Your task to perform on an android device: Go to Wikipedia Image 0: 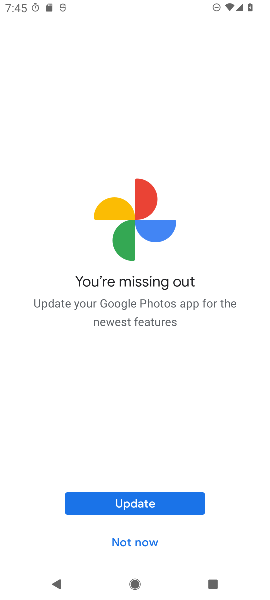
Step 0: press home button
Your task to perform on an android device: Go to Wikipedia Image 1: 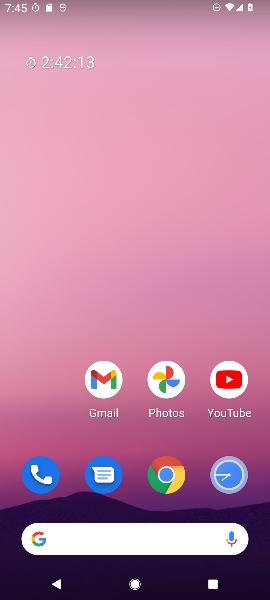
Step 1: drag from (59, 432) to (72, 159)
Your task to perform on an android device: Go to Wikipedia Image 2: 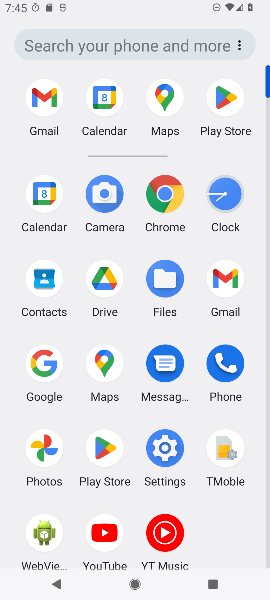
Step 2: click (162, 190)
Your task to perform on an android device: Go to Wikipedia Image 3: 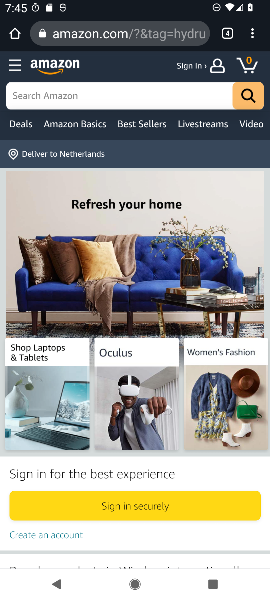
Step 3: click (143, 30)
Your task to perform on an android device: Go to Wikipedia Image 4: 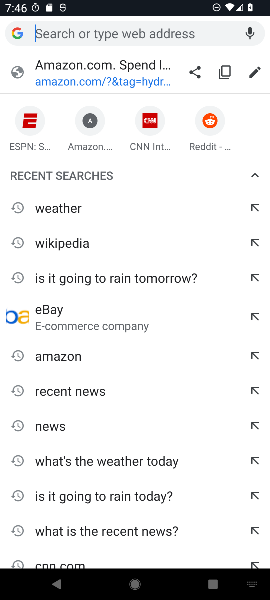
Step 4: type "wikipedia"
Your task to perform on an android device: Go to Wikipedia Image 5: 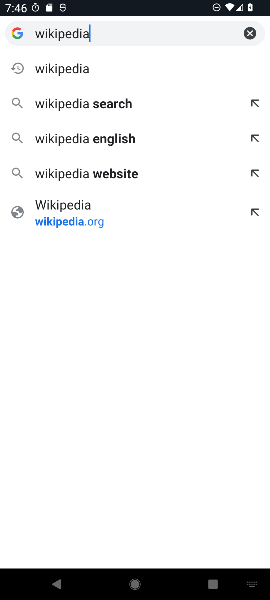
Step 5: click (76, 68)
Your task to perform on an android device: Go to Wikipedia Image 6: 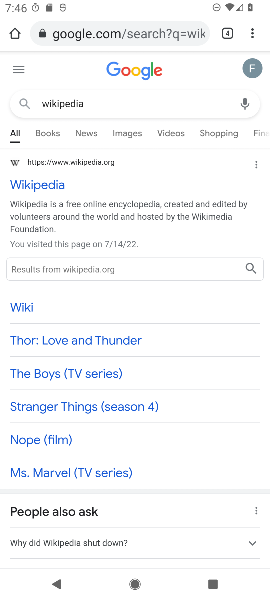
Step 6: task complete